Your task to perform on an android device: install app "Booking.com: Hotels and more" Image 0: 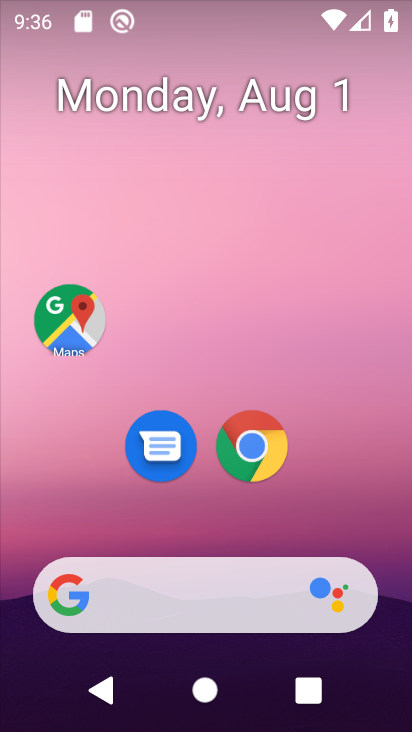
Step 0: drag from (211, 528) to (213, 67)
Your task to perform on an android device: install app "Booking.com: Hotels and more" Image 1: 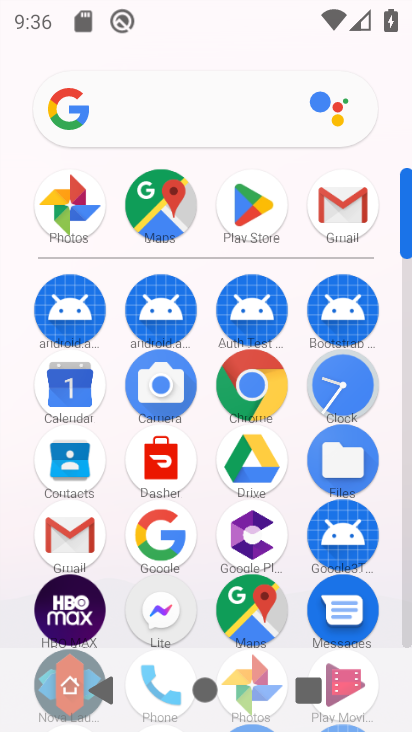
Step 1: click (256, 202)
Your task to perform on an android device: install app "Booking.com: Hotels and more" Image 2: 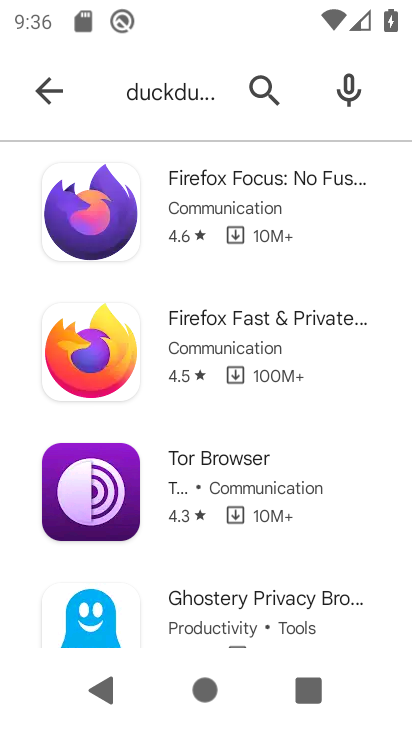
Step 2: click (266, 88)
Your task to perform on an android device: install app "Booking.com: Hotels and more" Image 3: 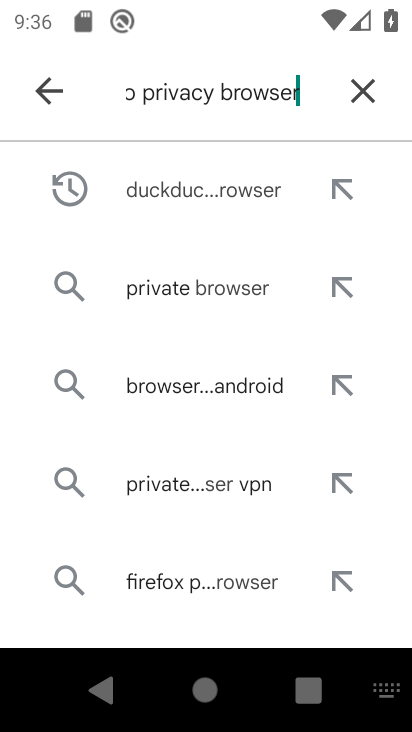
Step 3: click (354, 85)
Your task to perform on an android device: install app "Booking.com: Hotels and more" Image 4: 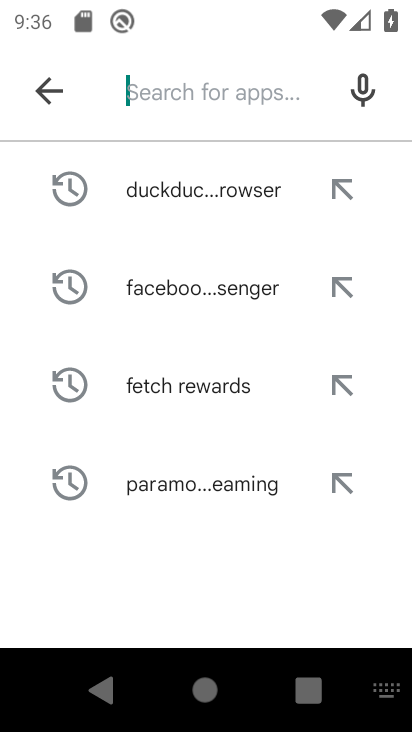
Step 4: type "Booking.com: Hotels and more"
Your task to perform on an android device: install app "Booking.com: Hotels and more" Image 5: 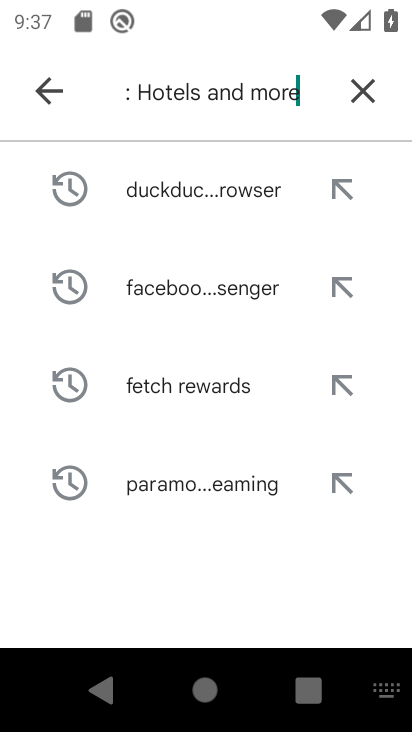
Step 5: type ""
Your task to perform on an android device: install app "Booking.com: Hotels and more" Image 6: 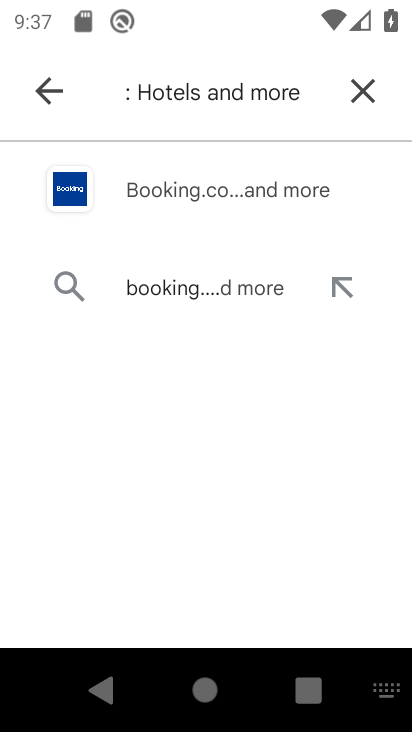
Step 6: click (193, 190)
Your task to perform on an android device: install app "Booking.com: Hotels and more" Image 7: 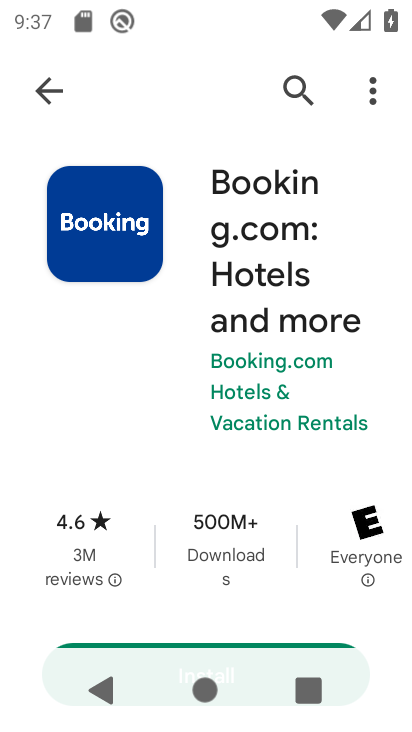
Step 7: drag from (155, 453) to (169, 153)
Your task to perform on an android device: install app "Booking.com: Hotels and more" Image 8: 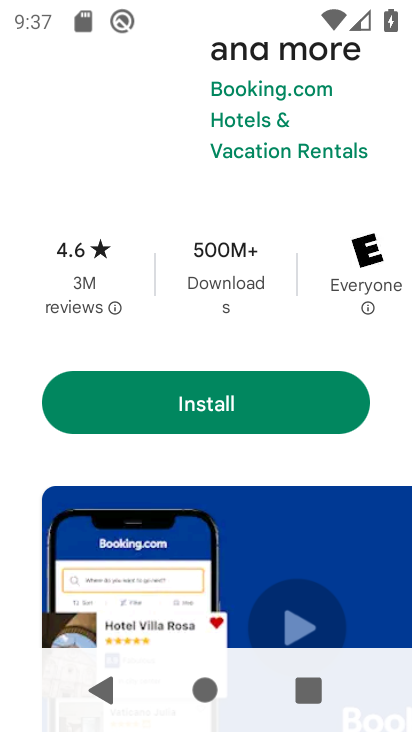
Step 8: click (175, 398)
Your task to perform on an android device: install app "Booking.com: Hotels and more" Image 9: 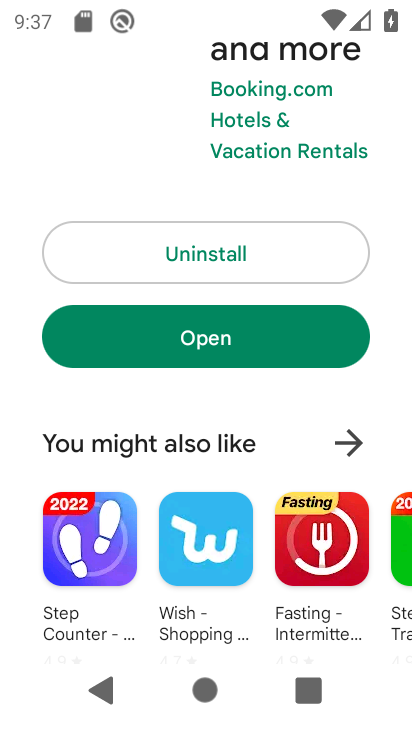
Step 9: task complete